Your task to perform on an android device: change your default location settings in chrome Image 0: 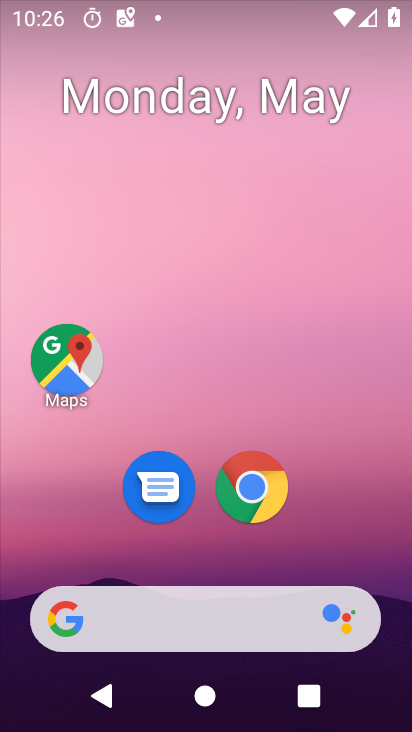
Step 0: click (256, 487)
Your task to perform on an android device: change your default location settings in chrome Image 1: 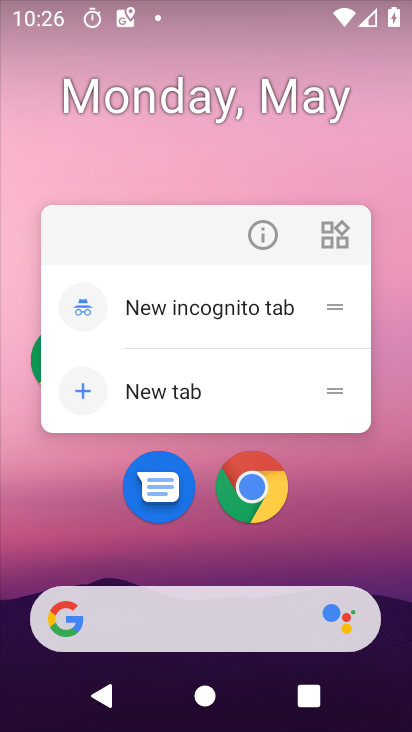
Step 1: click (256, 487)
Your task to perform on an android device: change your default location settings in chrome Image 2: 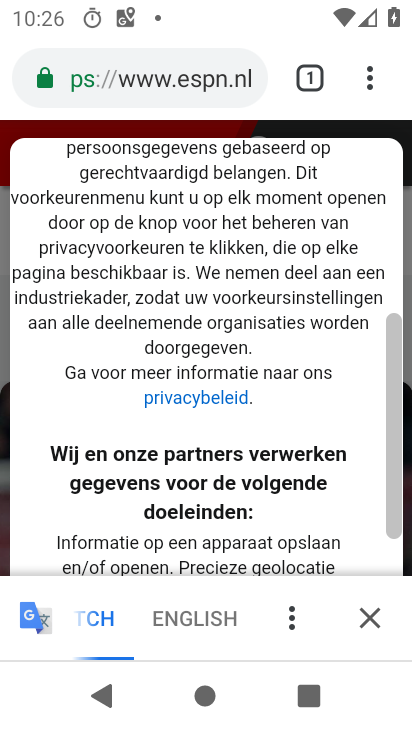
Step 2: click (375, 76)
Your task to perform on an android device: change your default location settings in chrome Image 3: 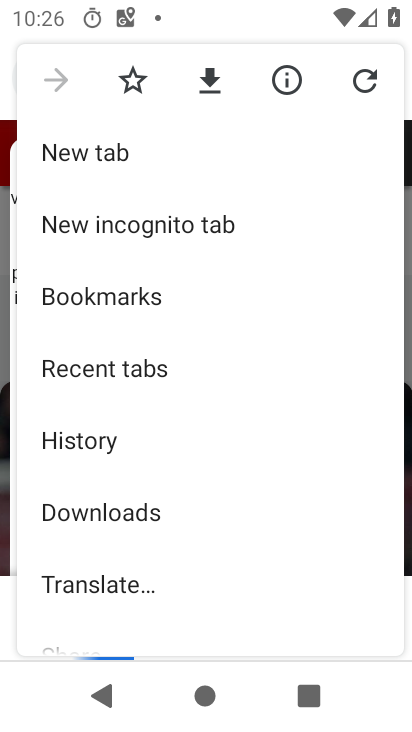
Step 3: drag from (159, 552) to (223, 273)
Your task to perform on an android device: change your default location settings in chrome Image 4: 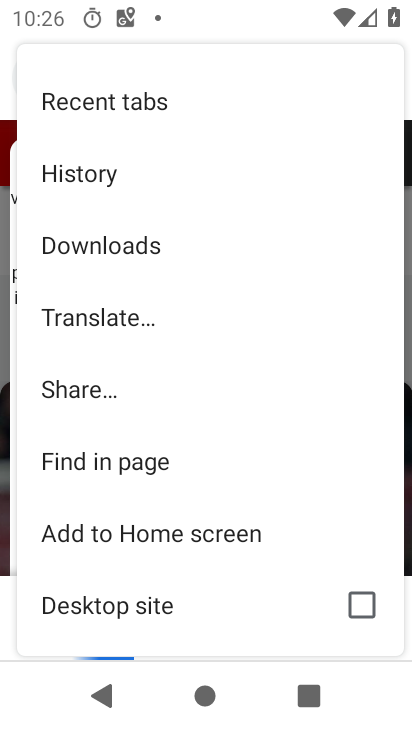
Step 4: drag from (110, 614) to (196, 365)
Your task to perform on an android device: change your default location settings in chrome Image 5: 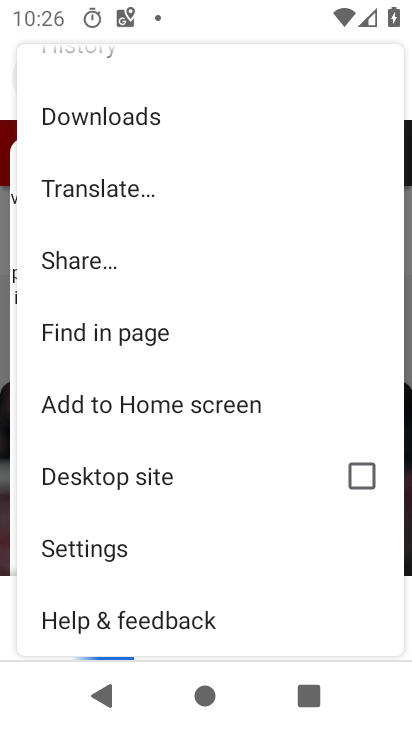
Step 5: click (106, 548)
Your task to perform on an android device: change your default location settings in chrome Image 6: 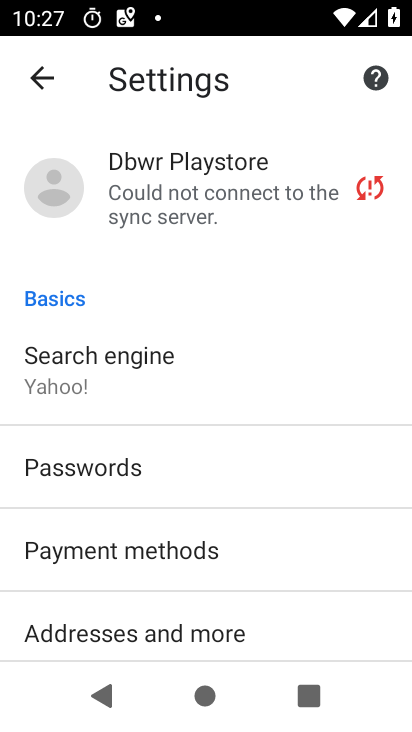
Step 6: drag from (257, 599) to (284, 424)
Your task to perform on an android device: change your default location settings in chrome Image 7: 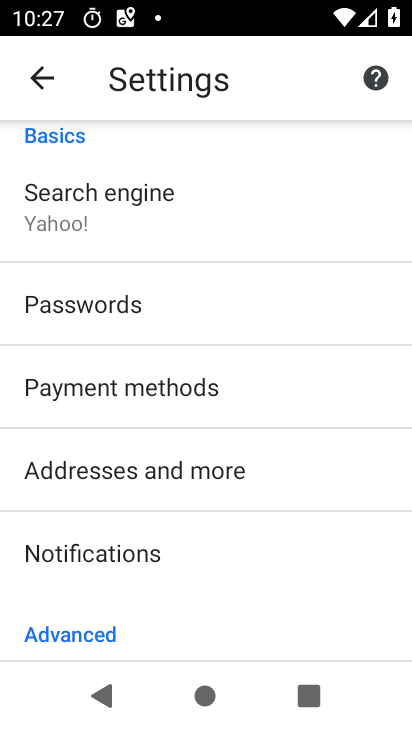
Step 7: drag from (220, 583) to (257, 407)
Your task to perform on an android device: change your default location settings in chrome Image 8: 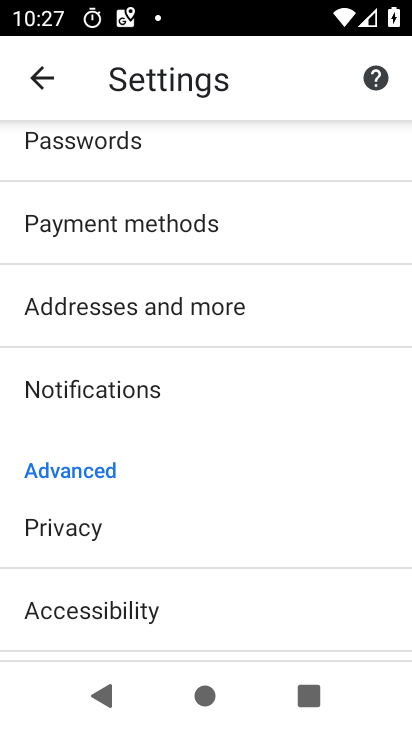
Step 8: drag from (205, 586) to (218, 425)
Your task to perform on an android device: change your default location settings in chrome Image 9: 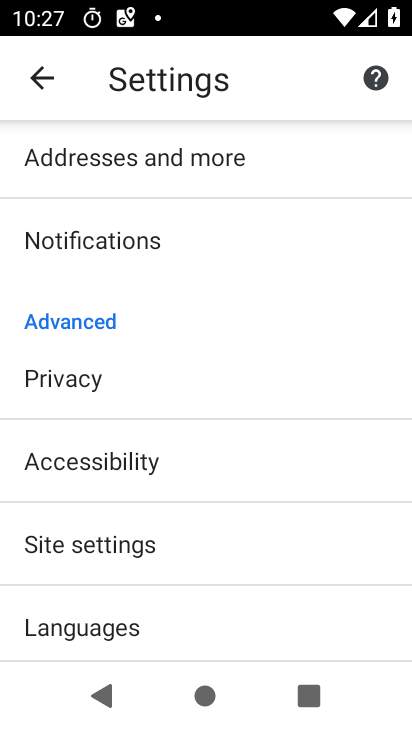
Step 9: click (152, 561)
Your task to perform on an android device: change your default location settings in chrome Image 10: 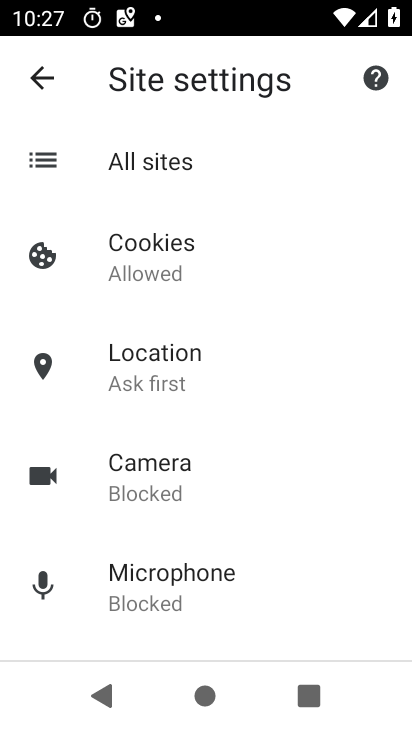
Step 10: click (214, 372)
Your task to perform on an android device: change your default location settings in chrome Image 11: 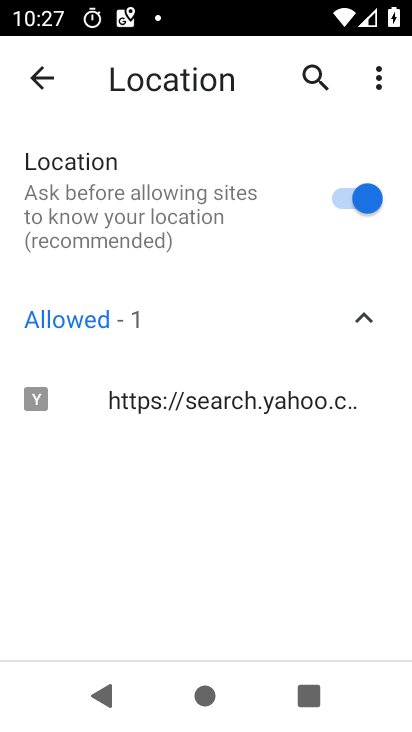
Step 11: click (362, 207)
Your task to perform on an android device: change your default location settings in chrome Image 12: 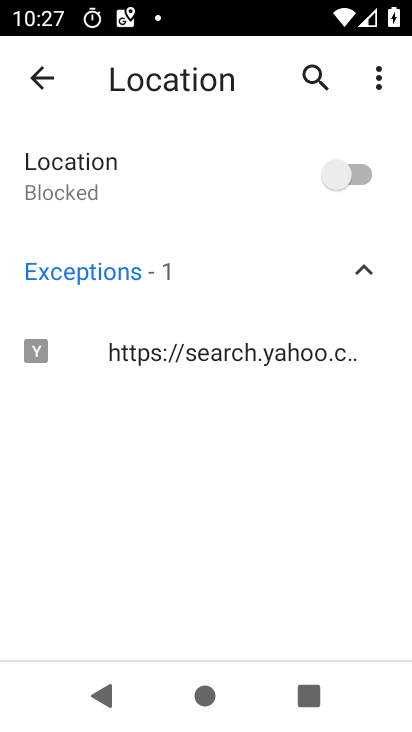
Step 12: task complete